Your task to perform on an android device: Open calendar and show me the first week of next month Image 0: 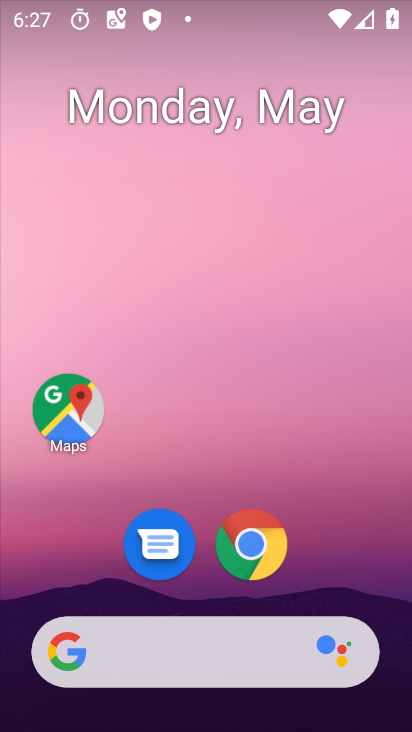
Step 0: click (222, 120)
Your task to perform on an android device: Open calendar and show me the first week of next month Image 1: 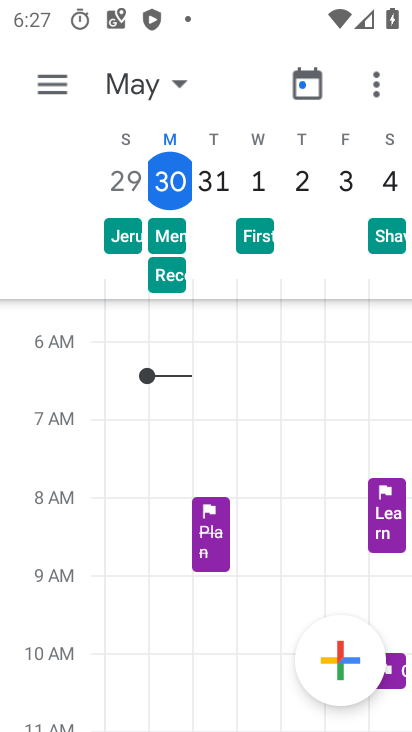
Step 1: click (175, 76)
Your task to perform on an android device: Open calendar and show me the first week of next month Image 2: 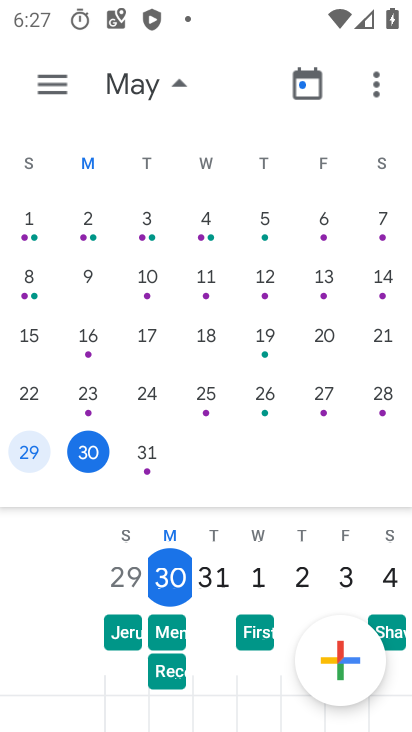
Step 2: task complete